Your task to perform on an android device: set default search engine in the chrome app Image 0: 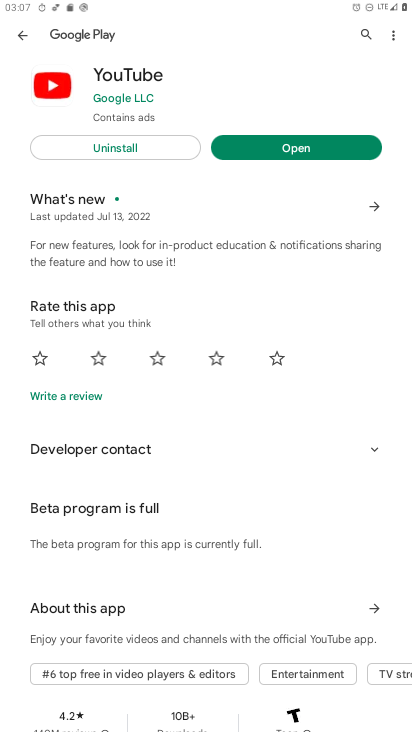
Step 0: press home button
Your task to perform on an android device: set default search engine in the chrome app Image 1: 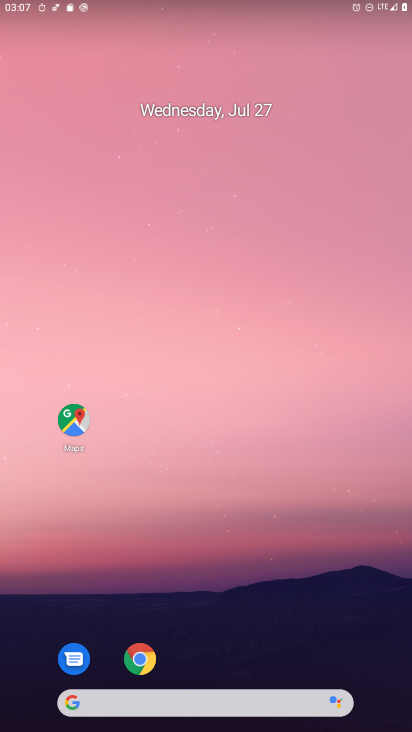
Step 1: drag from (321, 609) to (300, 60)
Your task to perform on an android device: set default search engine in the chrome app Image 2: 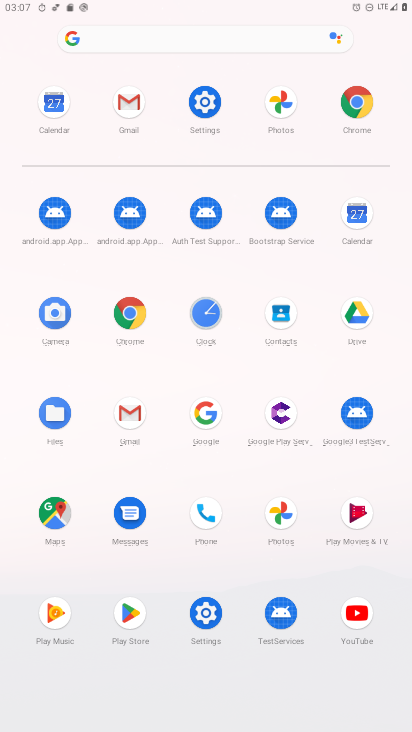
Step 2: click (130, 312)
Your task to perform on an android device: set default search engine in the chrome app Image 3: 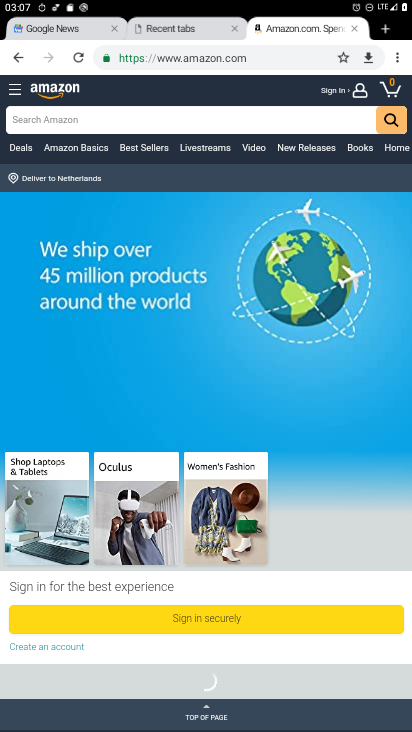
Step 3: drag from (402, 57) to (285, 392)
Your task to perform on an android device: set default search engine in the chrome app Image 4: 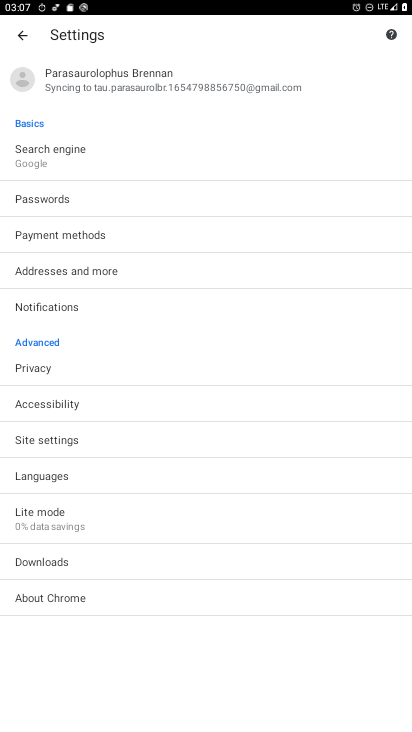
Step 4: click (120, 157)
Your task to perform on an android device: set default search engine in the chrome app Image 5: 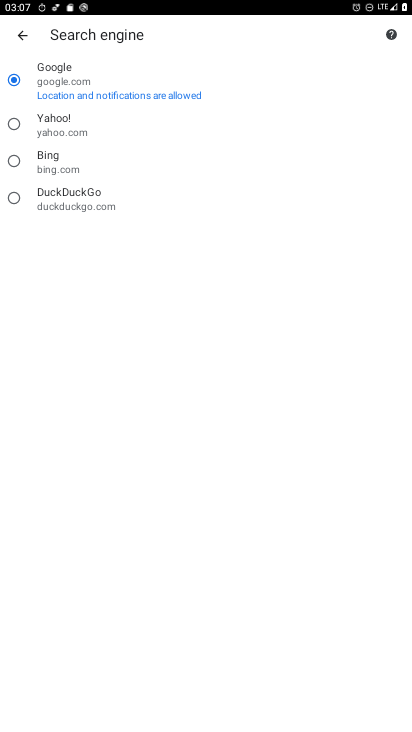
Step 5: task complete